Your task to perform on an android device: turn on bluetooth scan Image 0: 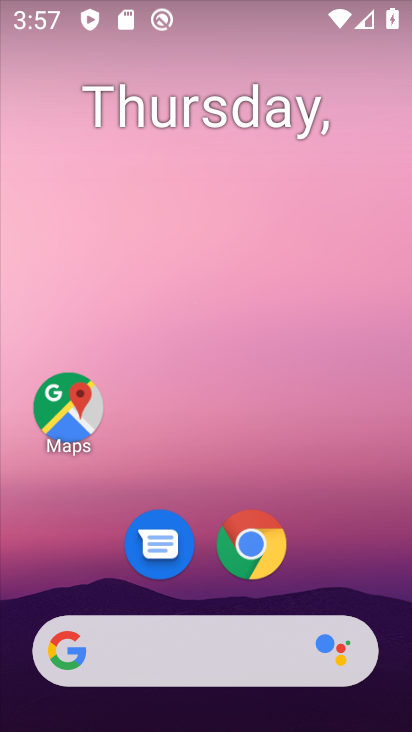
Step 0: drag from (315, 495) to (302, 218)
Your task to perform on an android device: turn on bluetooth scan Image 1: 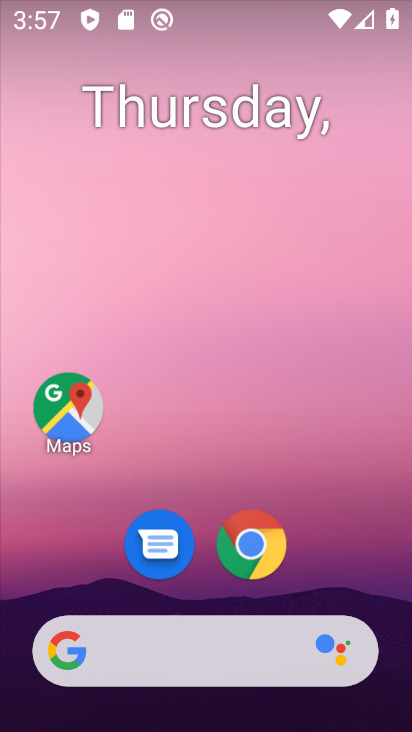
Step 1: drag from (363, 540) to (326, 158)
Your task to perform on an android device: turn on bluetooth scan Image 2: 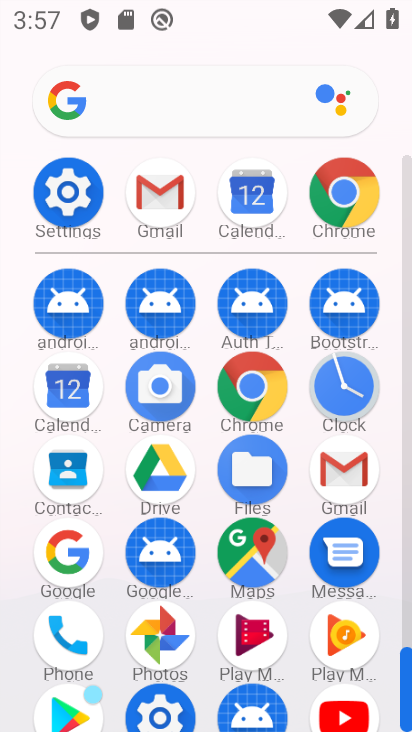
Step 2: click (76, 191)
Your task to perform on an android device: turn on bluetooth scan Image 3: 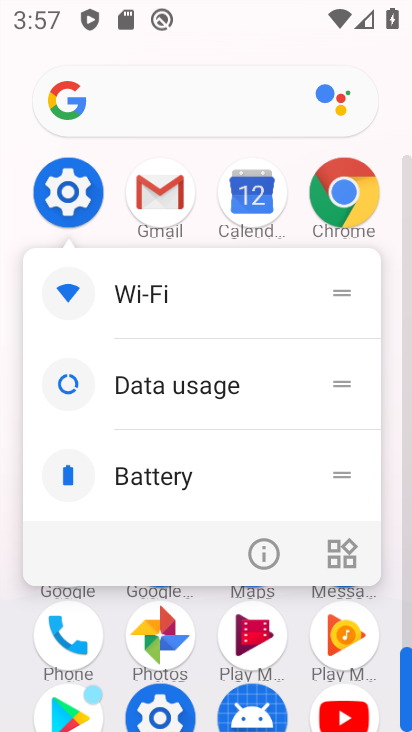
Step 3: click (73, 212)
Your task to perform on an android device: turn on bluetooth scan Image 4: 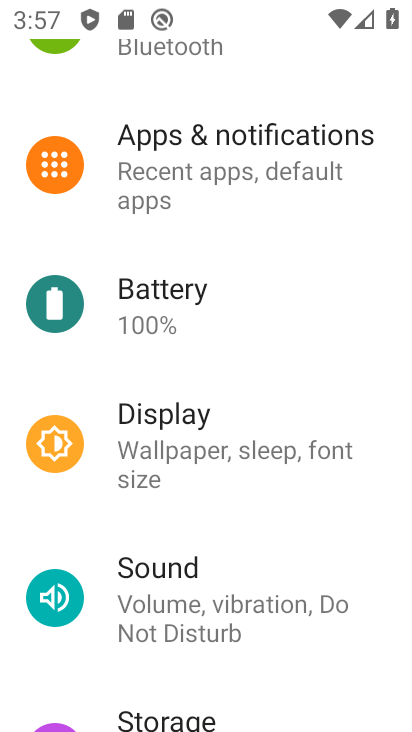
Step 4: drag from (300, 529) to (247, 318)
Your task to perform on an android device: turn on bluetooth scan Image 5: 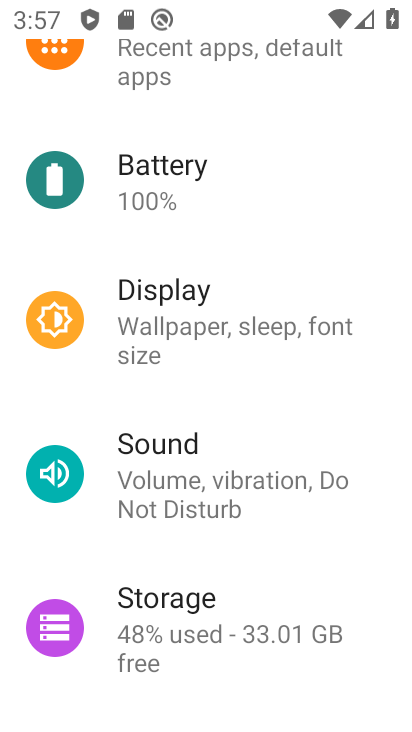
Step 5: drag from (242, 225) to (331, 581)
Your task to perform on an android device: turn on bluetooth scan Image 6: 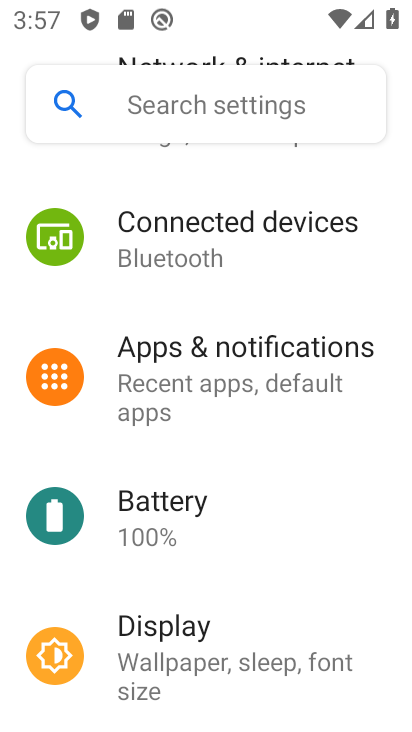
Step 6: click (210, 251)
Your task to perform on an android device: turn on bluetooth scan Image 7: 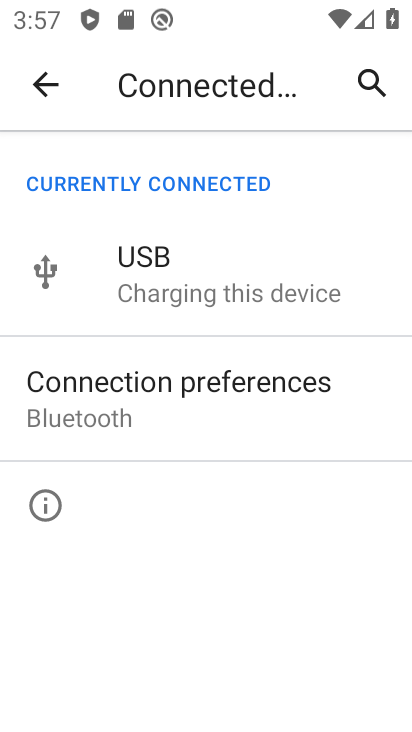
Step 7: drag from (248, 562) to (172, 168)
Your task to perform on an android device: turn on bluetooth scan Image 8: 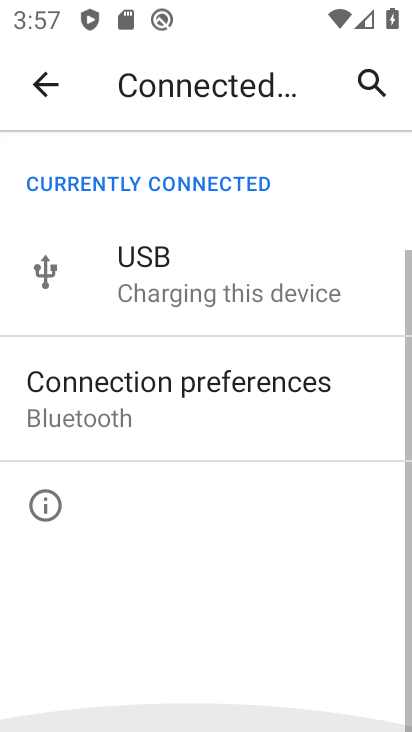
Step 8: drag from (236, 390) to (258, 538)
Your task to perform on an android device: turn on bluetooth scan Image 9: 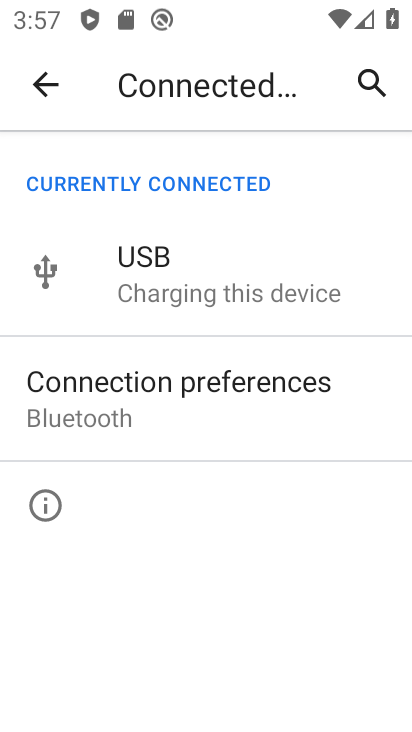
Step 9: press back button
Your task to perform on an android device: turn on bluetooth scan Image 10: 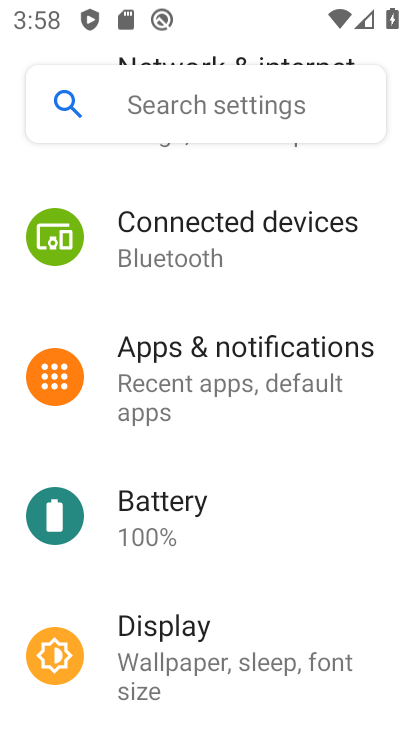
Step 10: drag from (188, 269) to (224, 627)
Your task to perform on an android device: turn on bluetooth scan Image 11: 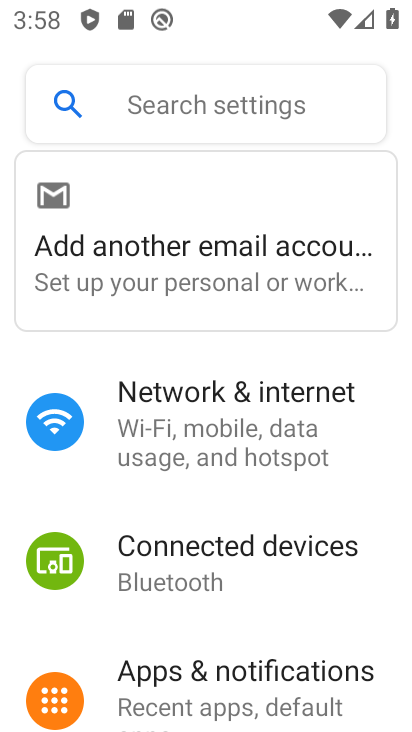
Step 11: drag from (238, 616) to (256, 352)
Your task to perform on an android device: turn on bluetooth scan Image 12: 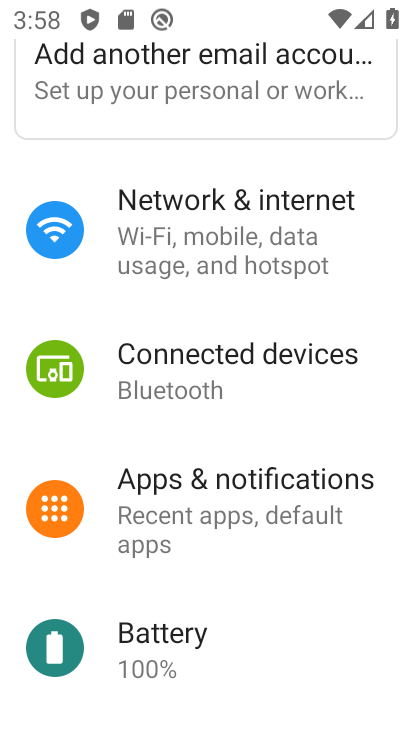
Step 12: drag from (283, 663) to (244, 391)
Your task to perform on an android device: turn on bluetooth scan Image 13: 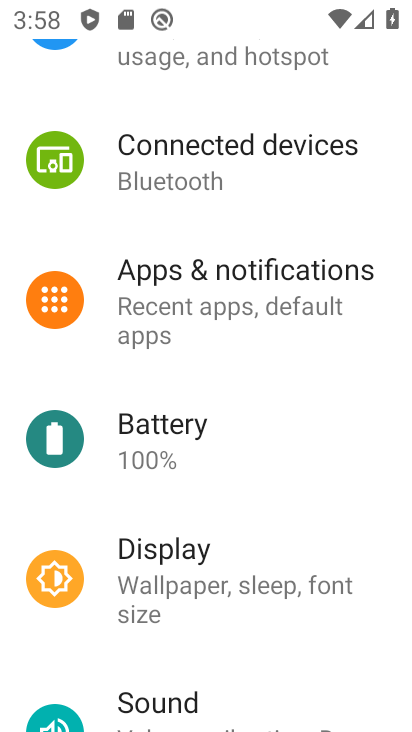
Step 13: drag from (220, 617) to (216, 330)
Your task to perform on an android device: turn on bluetooth scan Image 14: 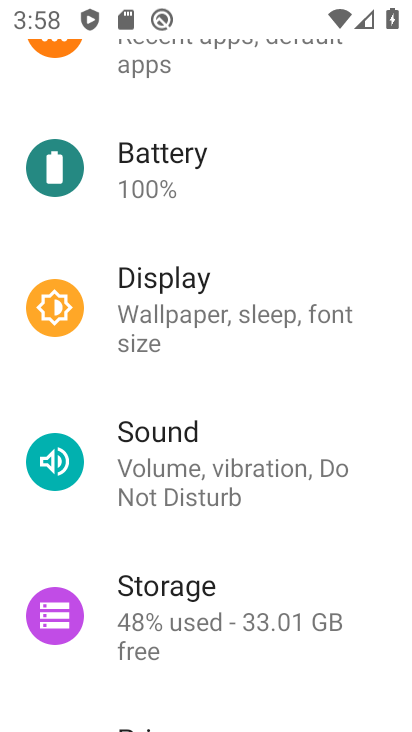
Step 14: drag from (265, 536) to (234, 252)
Your task to perform on an android device: turn on bluetooth scan Image 15: 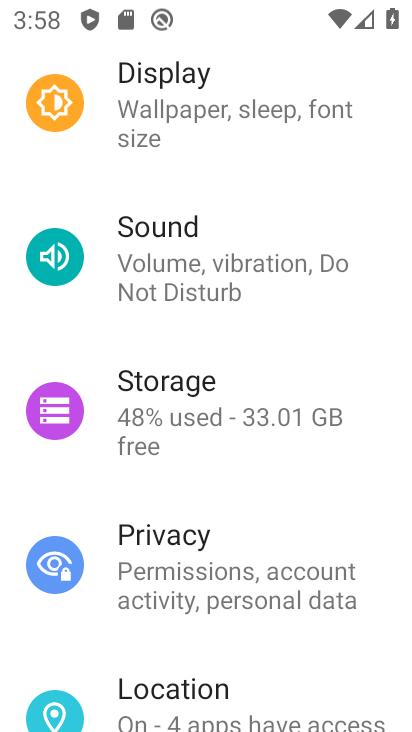
Step 15: click (214, 716)
Your task to perform on an android device: turn on bluetooth scan Image 16: 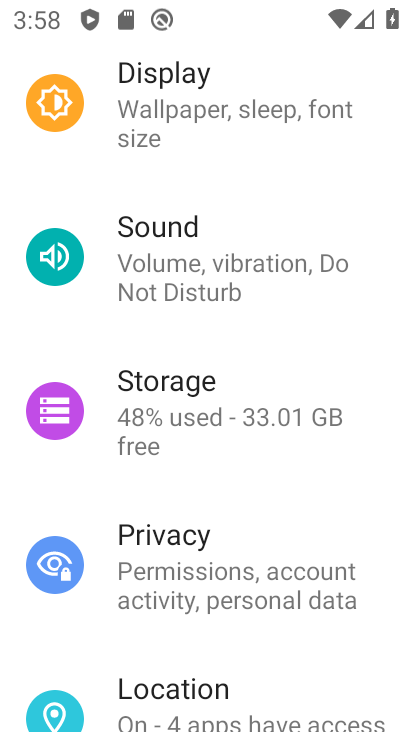
Step 16: click (193, 700)
Your task to perform on an android device: turn on bluetooth scan Image 17: 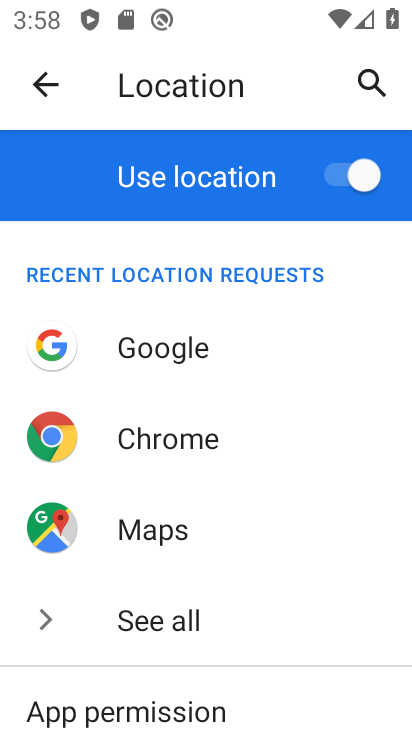
Step 17: drag from (250, 678) to (242, 313)
Your task to perform on an android device: turn on bluetooth scan Image 18: 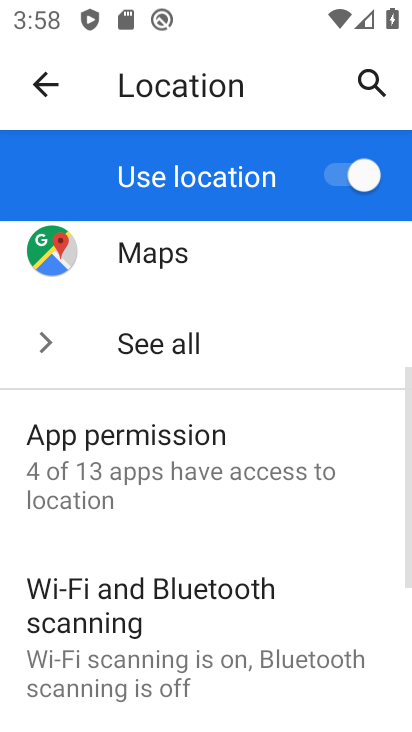
Step 18: click (167, 614)
Your task to perform on an android device: turn on bluetooth scan Image 19: 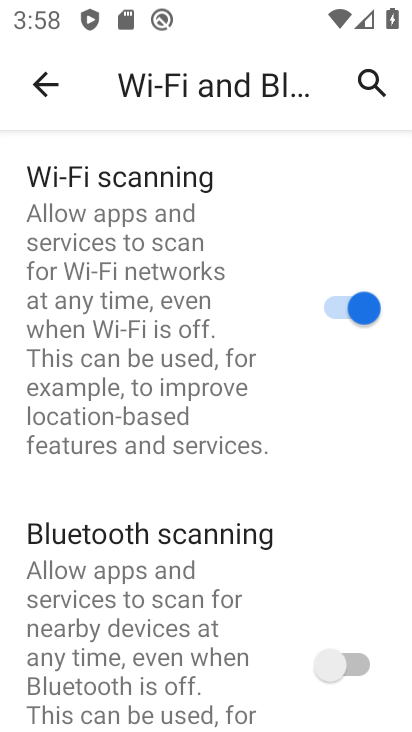
Step 19: click (331, 663)
Your task to perform on an android device: turn on bluetooth scan Image 20: 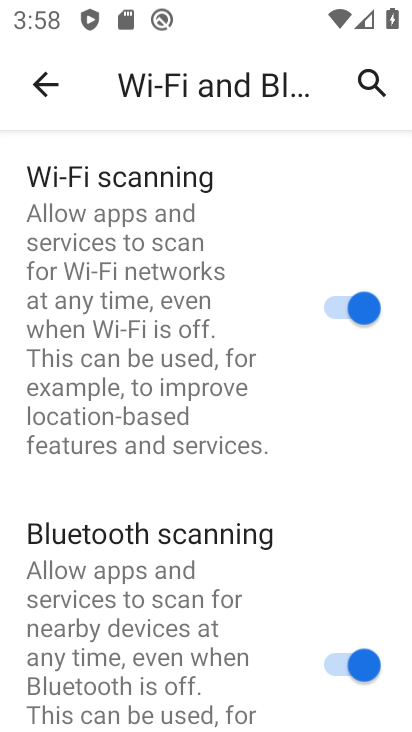
Step 20: task complete